Your task to perform on an android device: open chrome and create a bookmark for the current page Image 0: 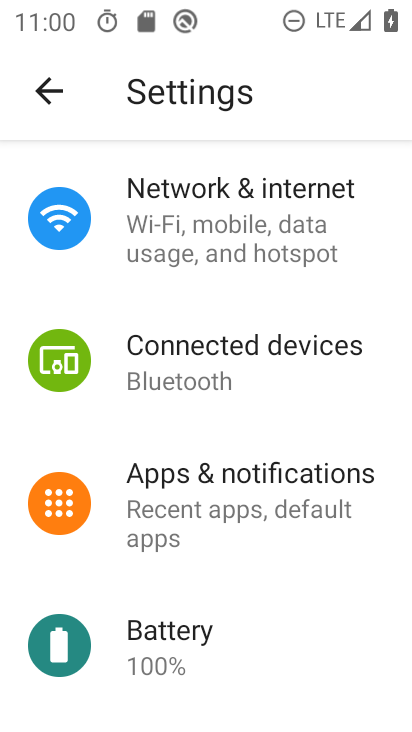
Step 0: press home button
Your task to perform on an android device: open chrome and create a bookmark for the current page Image 1: 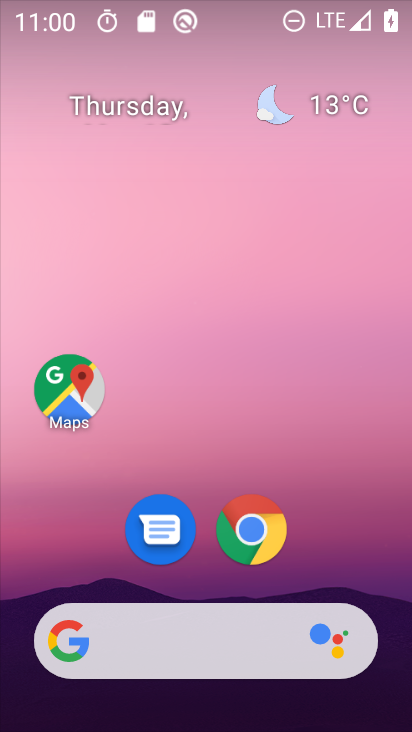
Step 1: click (266, 554)
Your task to perform on an android device: open chrome and create a bookmark for the current page Image 2: 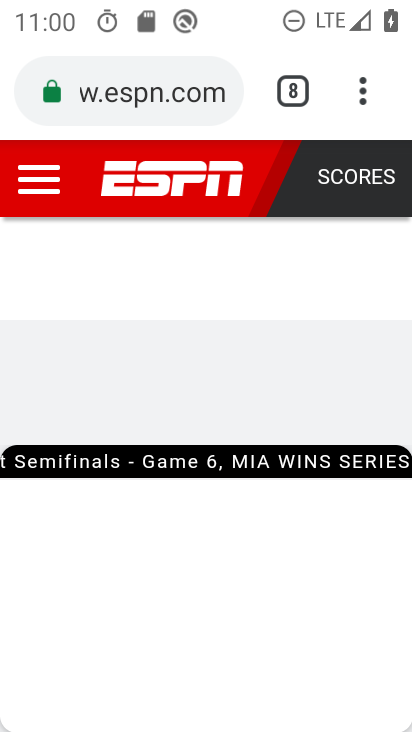
Step 2: click (357, 84)
Your task to perform on an android device: open chrome and create a bookmark for the current page Image 3: 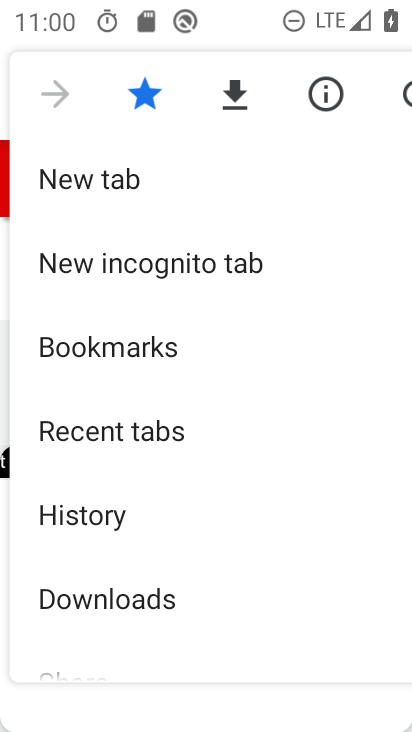
Step 3: click (258, 343)
Your task to perform on an android device: open chrome and create a bookmark for the current page Image 4: 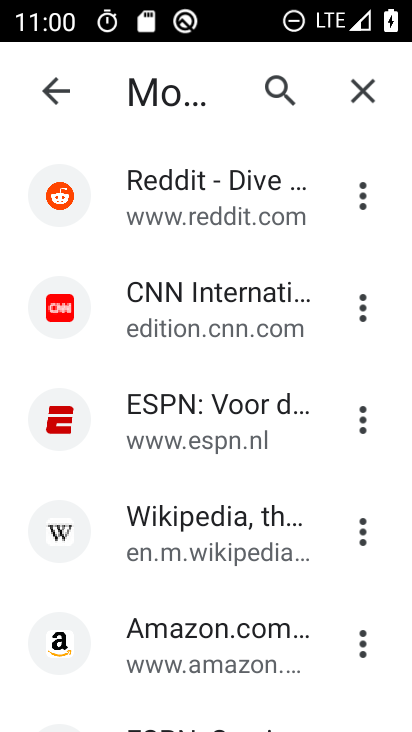
Step 4: drag from (257, 534) to (231, 179)
Your task to perform on an android device: open chrome and create a bookmark for the current page Image 5: 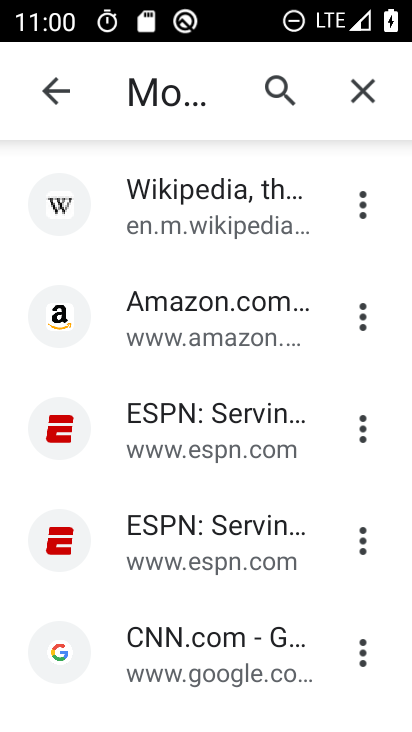
Step 5: drag from (230, 490) to (238, 189)
Your task to perform on an android device: open chrome and create a bookmark for the current page Image 6: 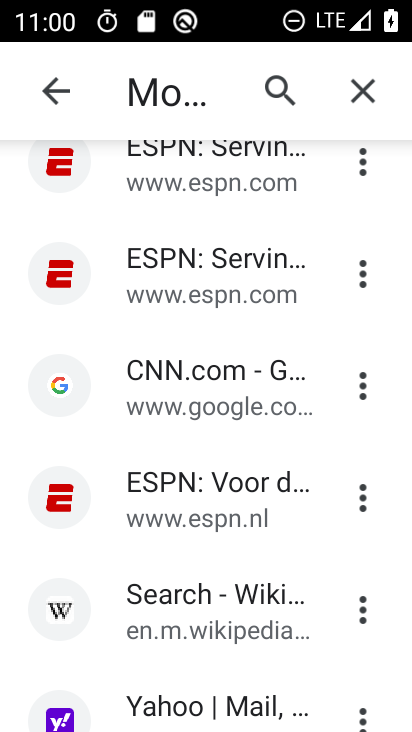
Step 6: drag from (209, 562) to (236, 214)
Your task to perform on an android device: open chrome and create a bookmark for the current page Image 7: 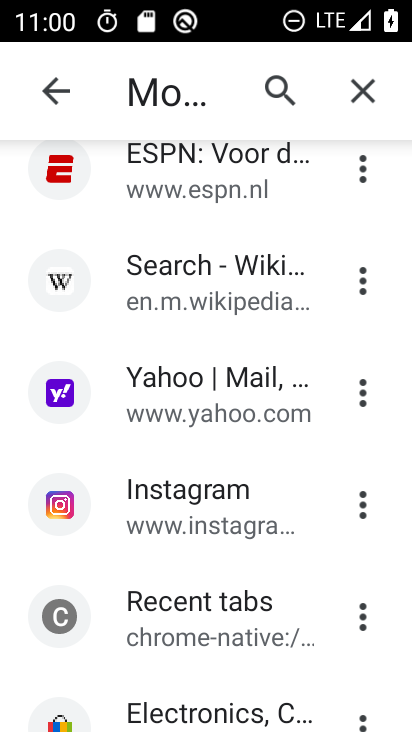
Step 7: click (276, 75)
Your task to perform on an android device: open chrome and create a bookmark for the current page Image 8: 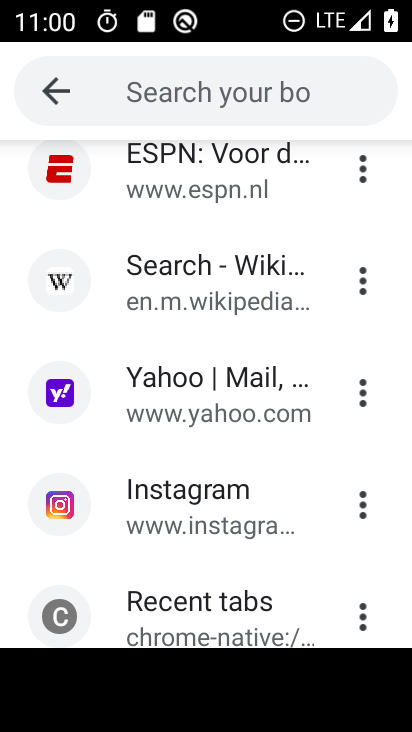
Step 8: click (43, 80)
Your task to perform on an android device: open chrome and create a bookmark for the current page Image 9: 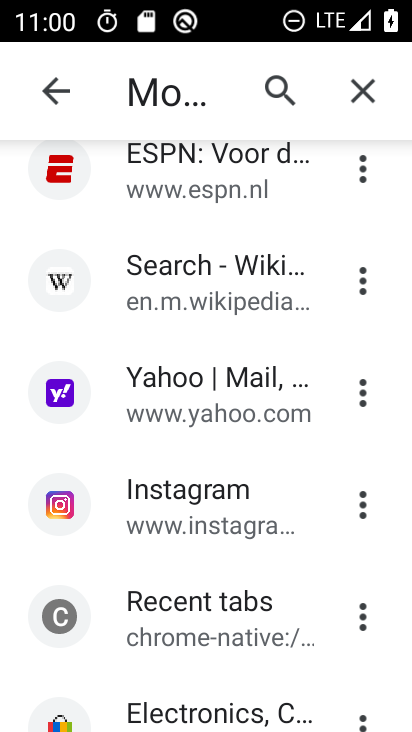
Step 9: drag from (249, 523) to (245, 213)
Your task to perform on an android device: open chrome and create a bookmark for the current page Image 10: 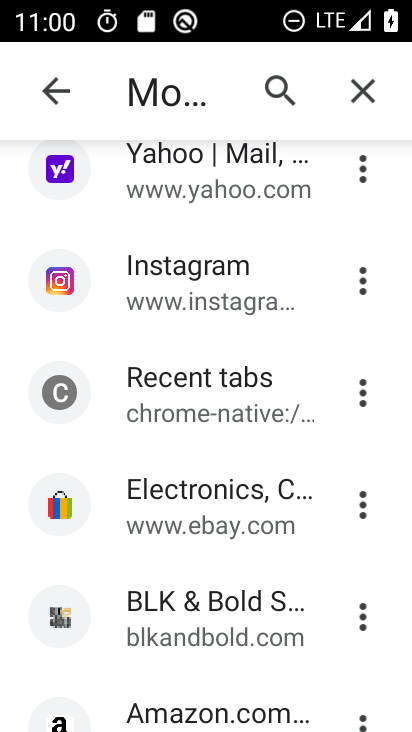
Step 10: drag from (245, 633) to (247, 280)
Your task to perform on an android device: open chrome and create a bookmark for the current page Image 11: 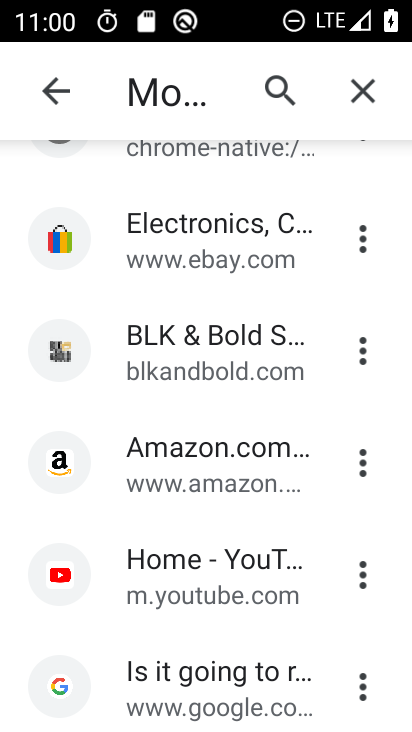
Step 11: press back button
Your task to perform on an android device: open chrome and create a bookmark for the current page Image 12: 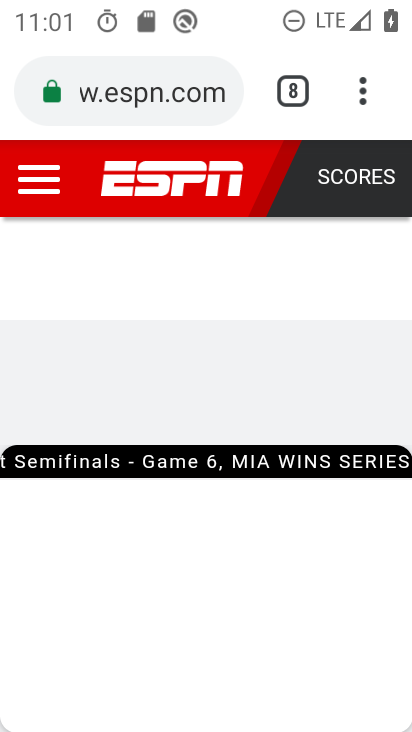
Step 12: click (353, 91)
Your task to perform on an android device: open chrome and create a bookmark for the current page Image 13: 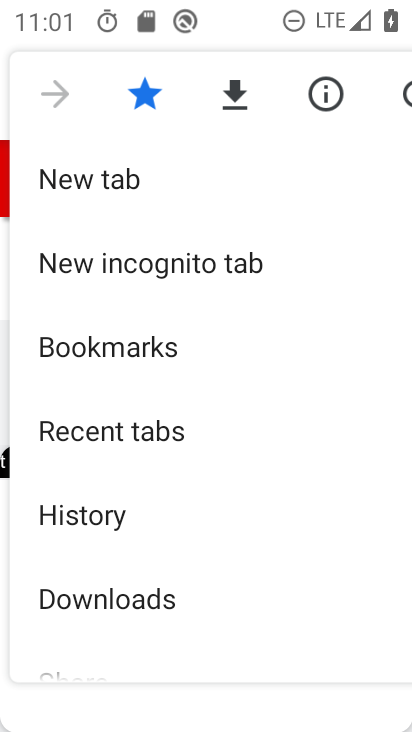
Step 13: drag from (253, 543) to (228, 212)
Your task to perform on an android device: open chrome and create a bookmark for the current page Image 14: 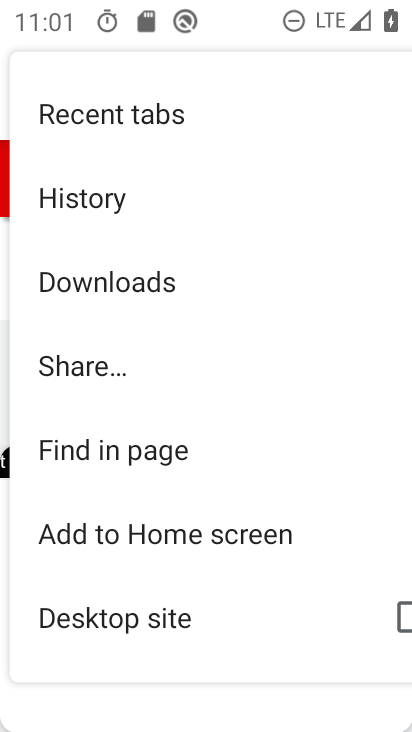
Step 14: drag from (237, 531) to (246, 260)
Your task to perform on an android device: open chrome and create a bookmark for the current page Image 15: 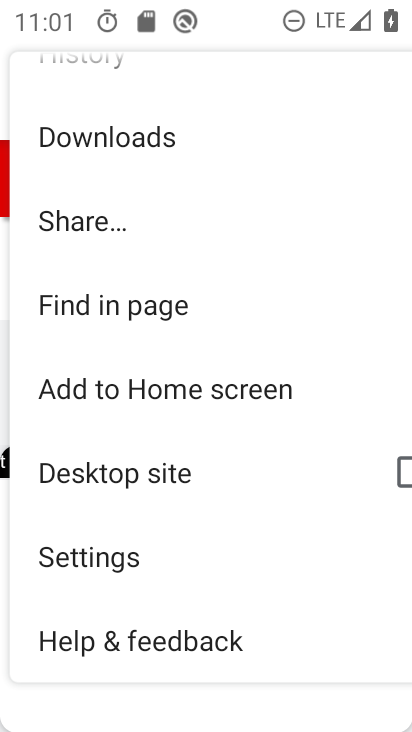
Step 15: click (174, 548)
Your task to perform on an android device: open chrome and create a bookmark for the current page Image 16: 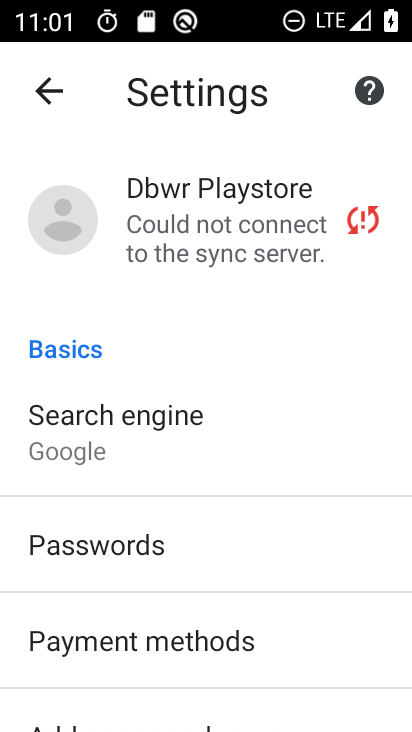
Step 16: drag from (255, 642) to (258, 331)
Your task to perform on an android device: open chrome and create a bookmark for the current page Image 17: 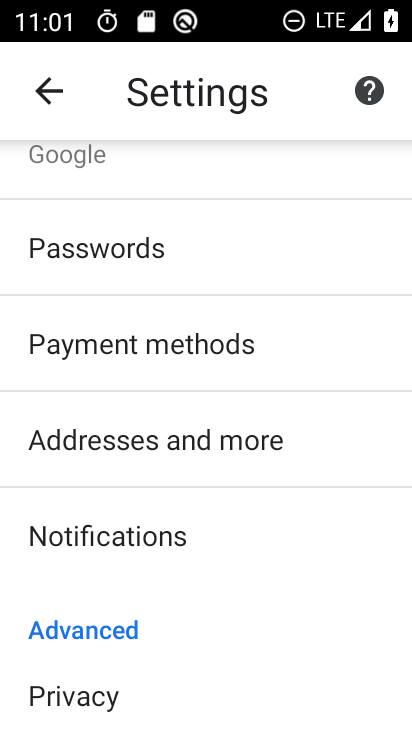
Step 17: drag from (238, 580) to (230, 265)
Your task to perform on an android device: open chrome and create a bookmark for the current page Image 18: 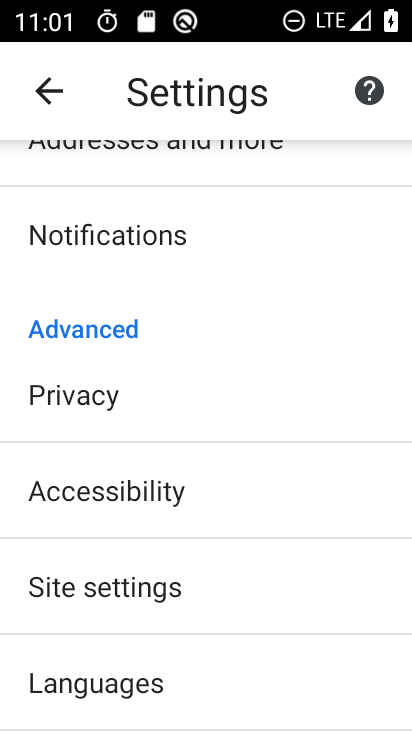
Step 18: drag from (201, 631) to (202, 277)
Your task to perform on an android device: open chrome and create a bookmark for the current page Image 19: 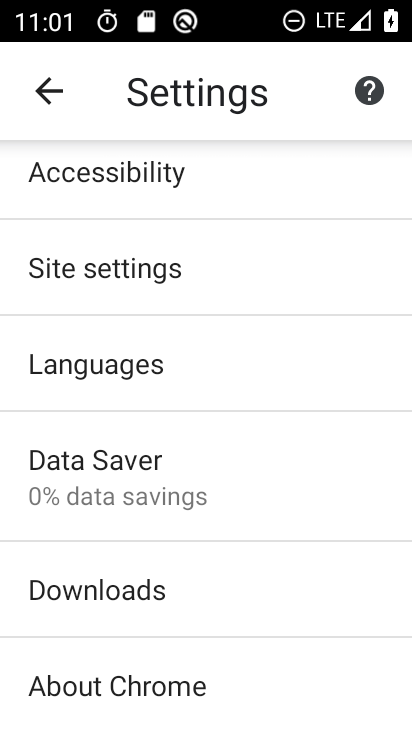
Step 19: drag from (229, 613) to (224, 306)
Your task to perform on an android device: open chrome and create a bookmark for the current page Image 20: 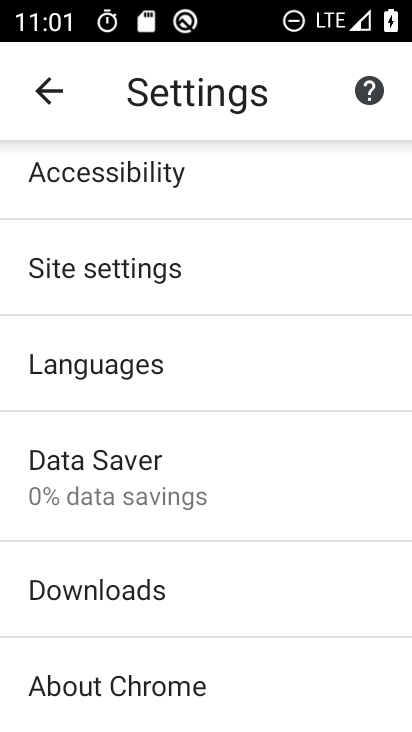
Step 20: click (209, 265)
Your task to perform on an android device: open chrome and create a bookmark for the current page Image 21: 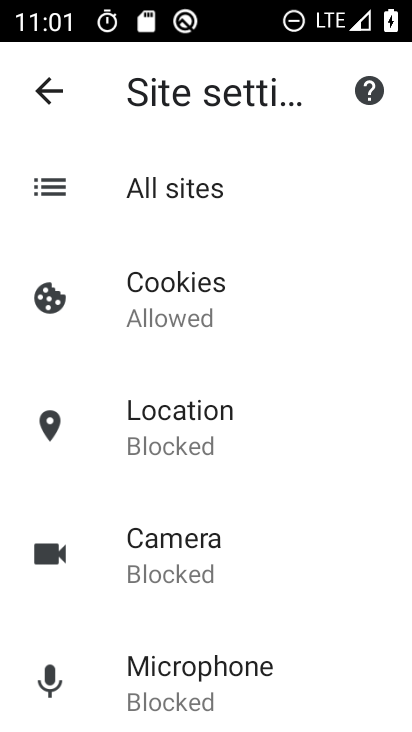
Step 21: task complete